Your task to perform on an android device: Open Wikipedia Image 0: 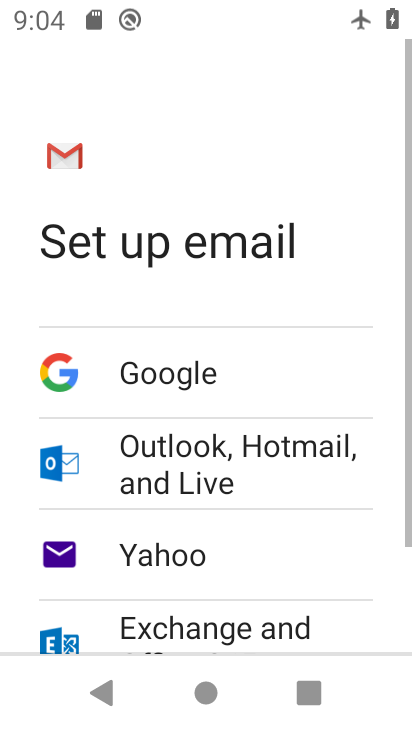
Step 0: press home button
Your task to perform on an android device: Open Wikipedia Image 1: 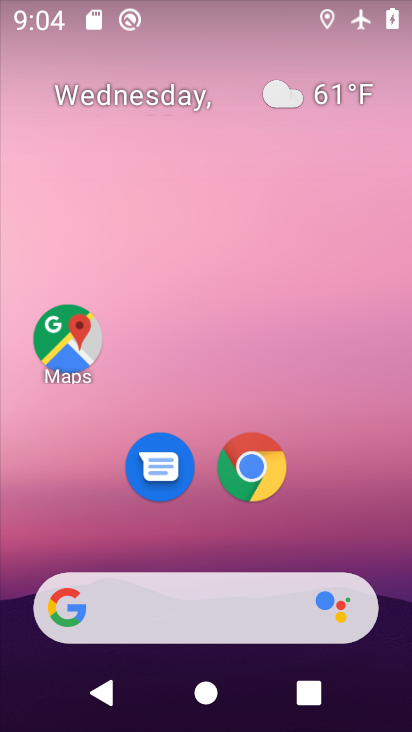
Step 1: drag from (338, 467) to (0, 0)
Your task to perform on an android device: Open Wikipedia Image 2: 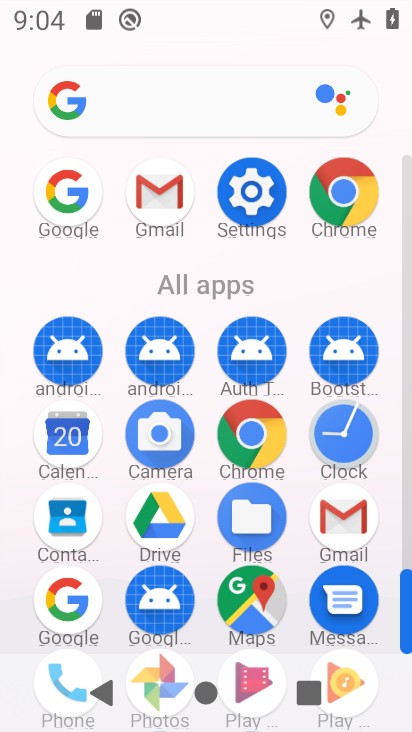
Step 2: click (230, 208)
Your task to perform on an android device: Open Wikipedia Image 3: 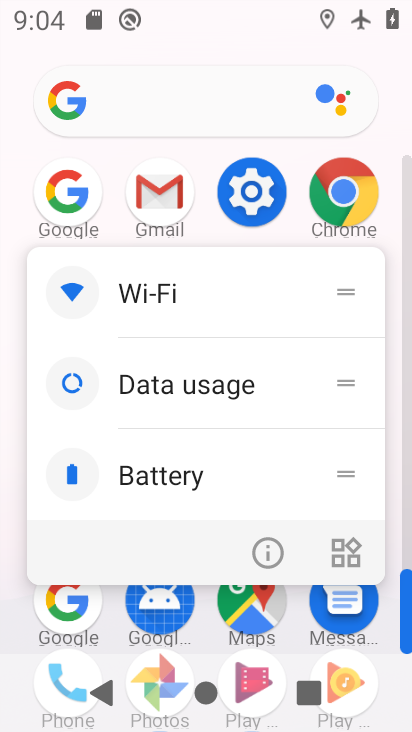
Step 3: click (243, 191)
Your task to perform on an android device: Open Wikipedia Image 4: 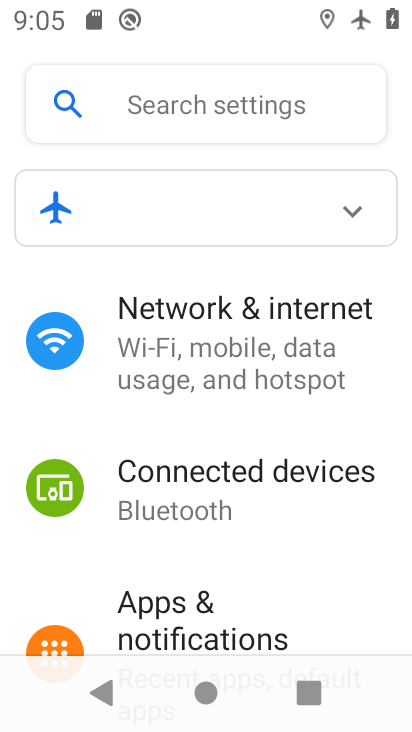
Step 4: click (154, 327)
Your task to perform on an android device: Open Wikipedia Image 5: 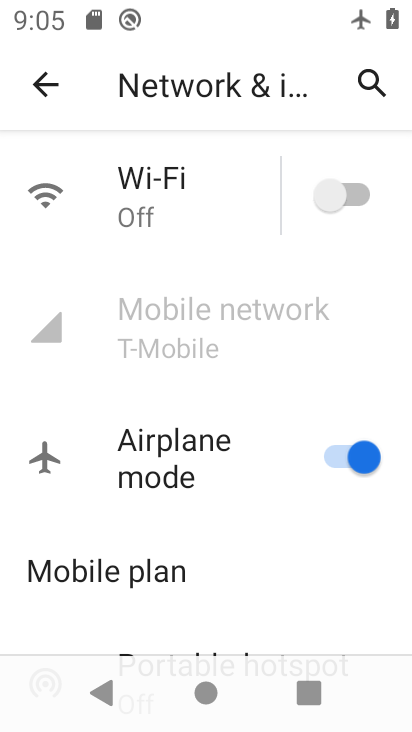
Step 5: click (138, 214)
Your task to perform on an android device: Open Wikipedia Image 6: 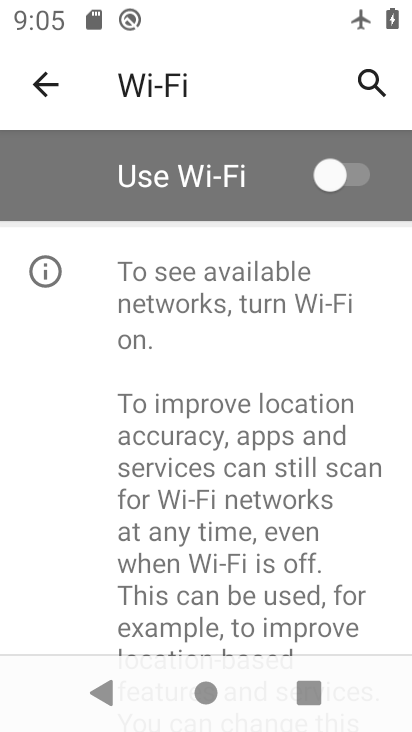
Step 6: task complete